Your task to perform on an android device: What's the weather? Image 0: 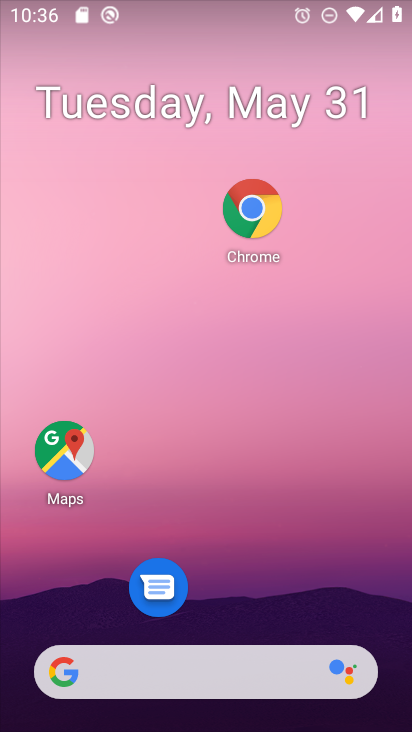
Step 0: press home button
Your task to perform on an android device: What's the weather? Image 1: 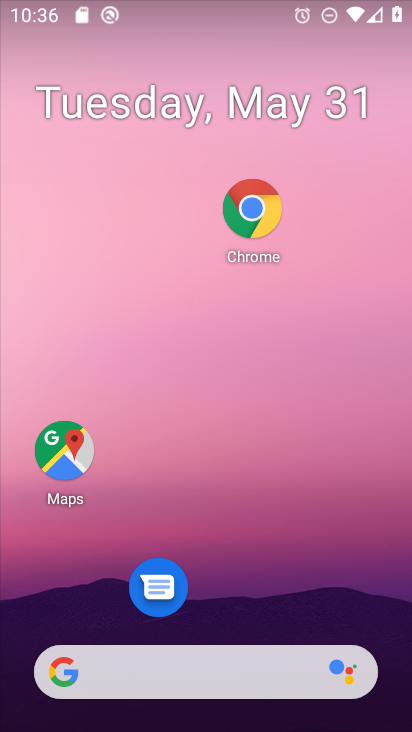
Step 1: drag from (18, 306) to (398, 329)
Your task to perform on an android device: What's the weather? Image 2: 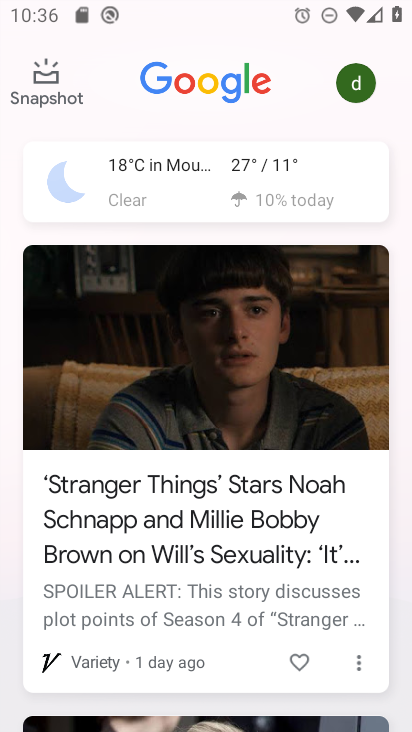
Step 2: click (275, 162)
Your task to perform on an android device: What's the weather? Image 3: 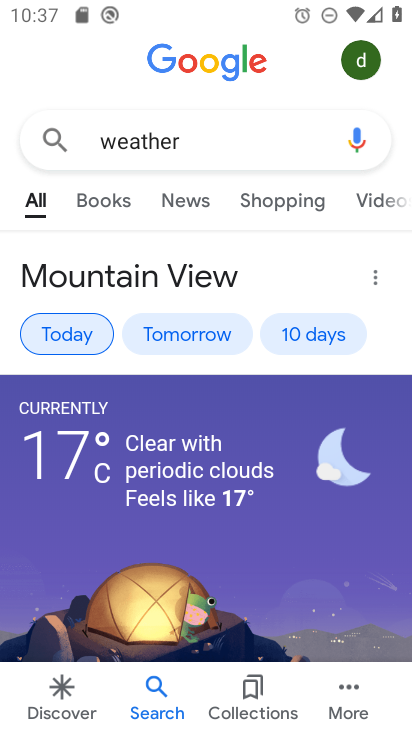
Step 3: task complete